Your task to perform on an android device: Show me popular games on the Play Store Image 0: 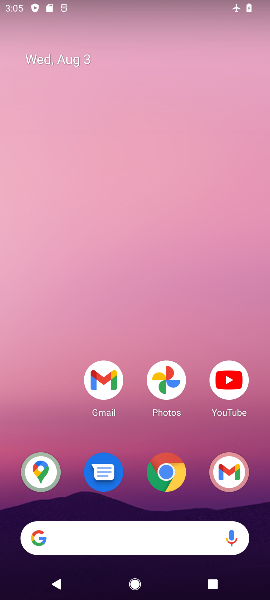
Step 0: drag from (193, 476) to (23, 67)
Your task to perform on an android device: Show me popular games on the Play Store Image 1: 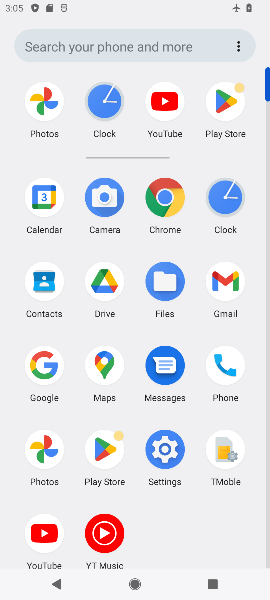
Step 1: click (101, 437)
Your task to perform on an android device: Show me popular games on the Play Store Image 2: 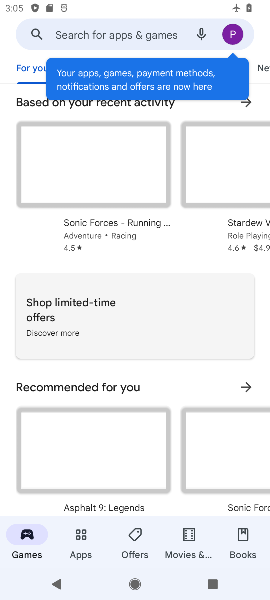
Step 2: click (90, 31)
Your task to perform on an android device: Show me popular games on the Play Store Image 3: 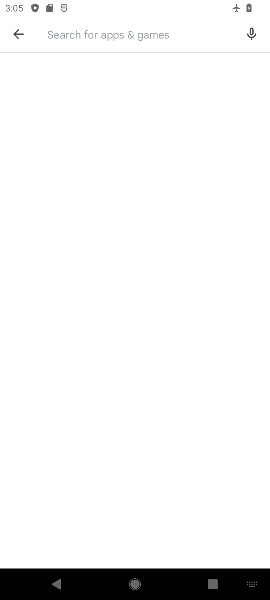
Step 3: type "popular games"
Your task to perform on an android device: Show me popular games on the Play Store Image 4: 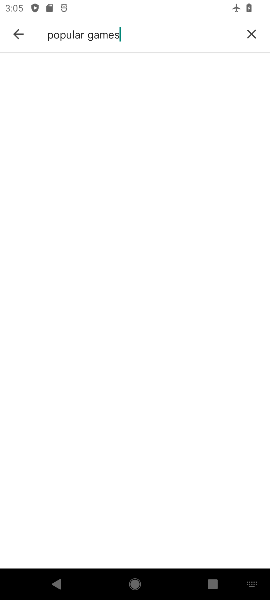
Step 4: task complete